Your task to perform on an android device: Open settings Image 0: 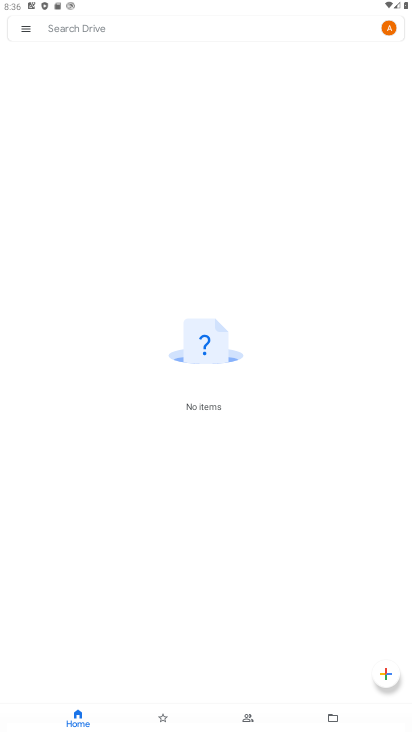
Step 0: press home button
Your task to perform on an android device: Open settings Image 1: 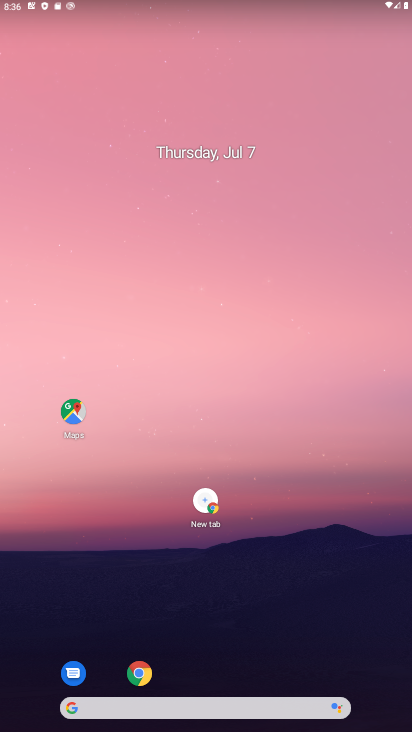
Step 1: drag from (304, 567) to (284, 85)
Your task to perform on an android device: Open settings Image 2: 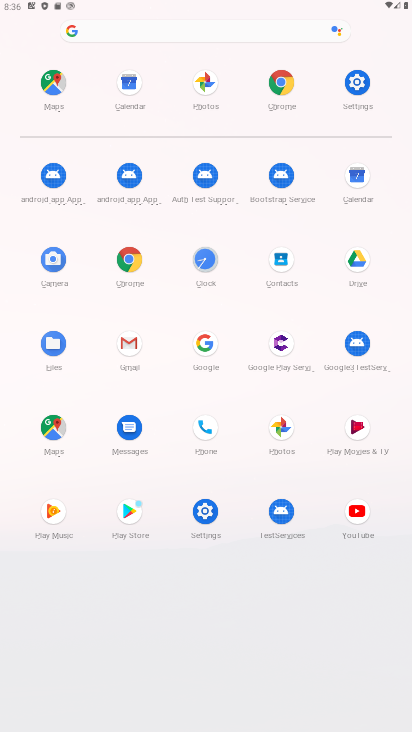
Step 2: click (369, 85)
Your task to perform on an android device: Open settings Image 3: 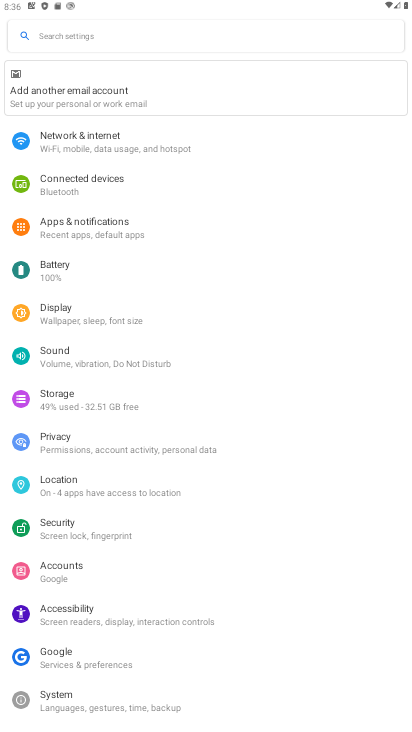
Step 3: task complete